Your task to perform on an android device: check google app version Image 0: 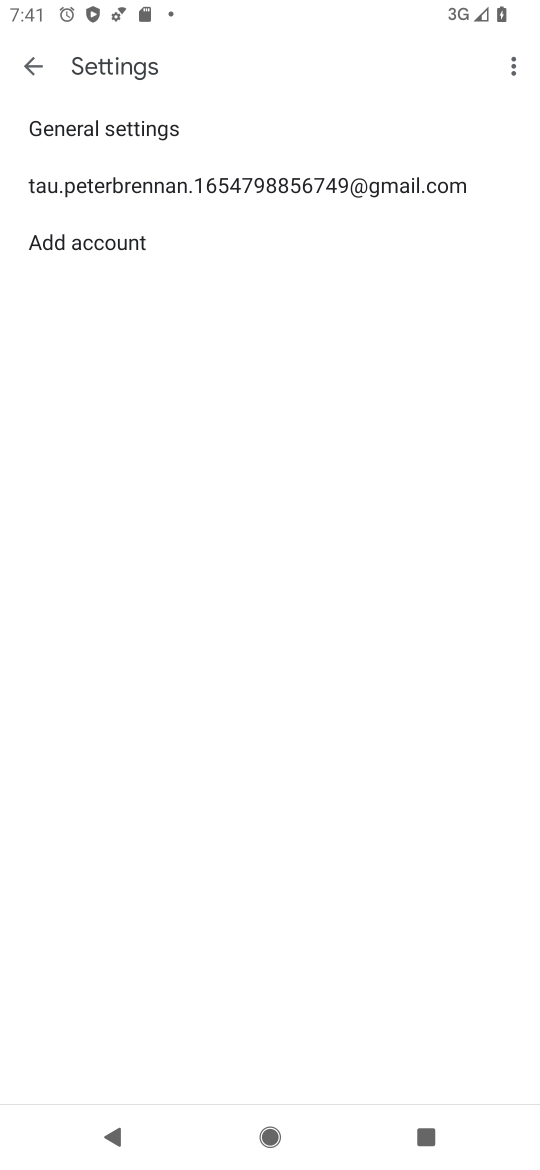
Step 0: click (28, 74)
Your task to perform on an android device: check google app version Image 1: 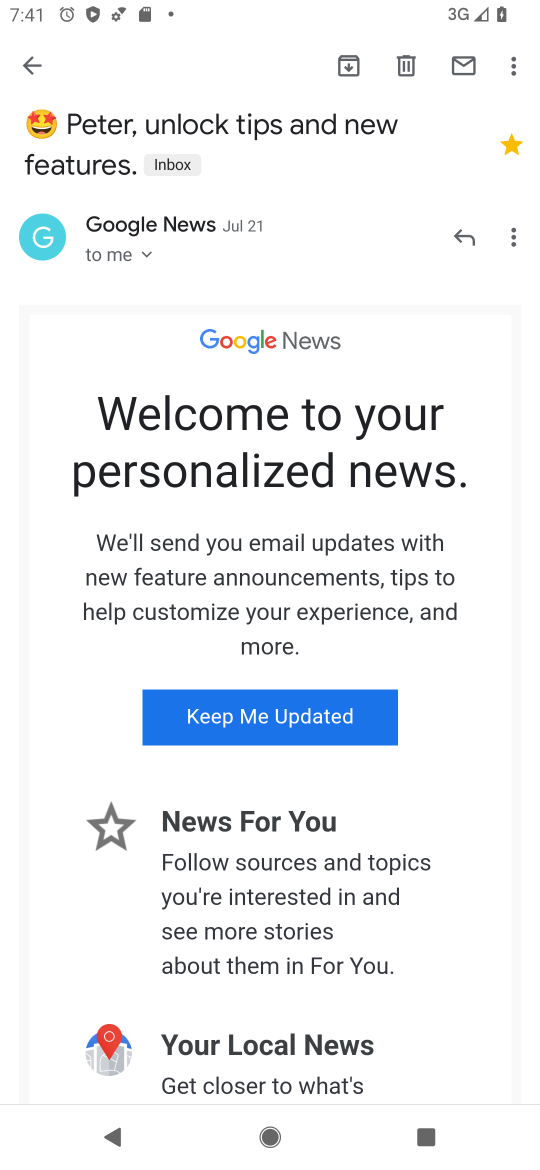
Step 1: click (31, 66)
Your task to perform on an android device: check google app version Image 2: 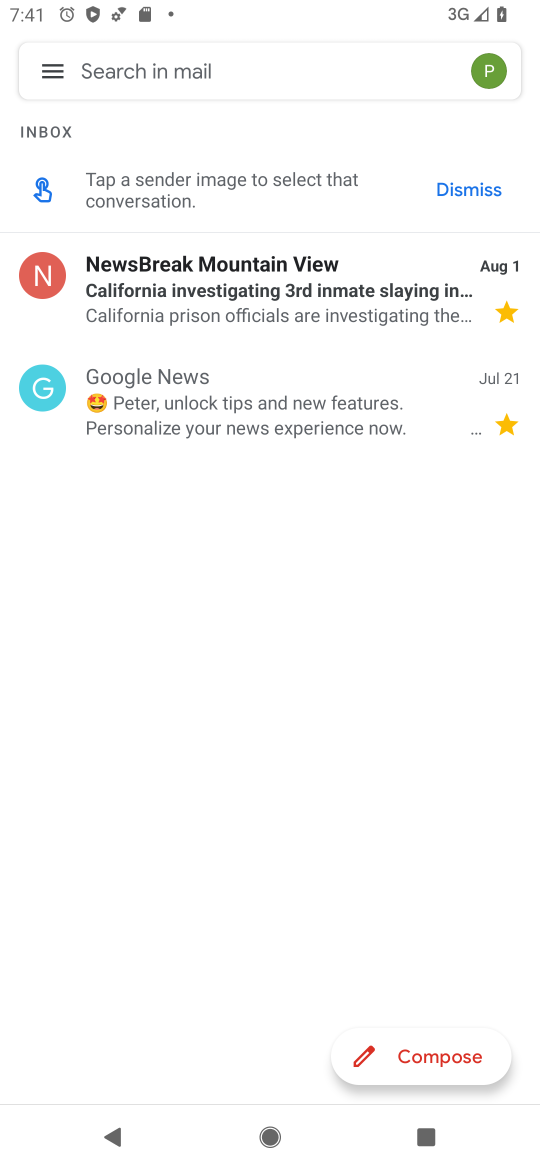
Step 2: press back button
Your task to perform on an android device: check google app version Image 3: 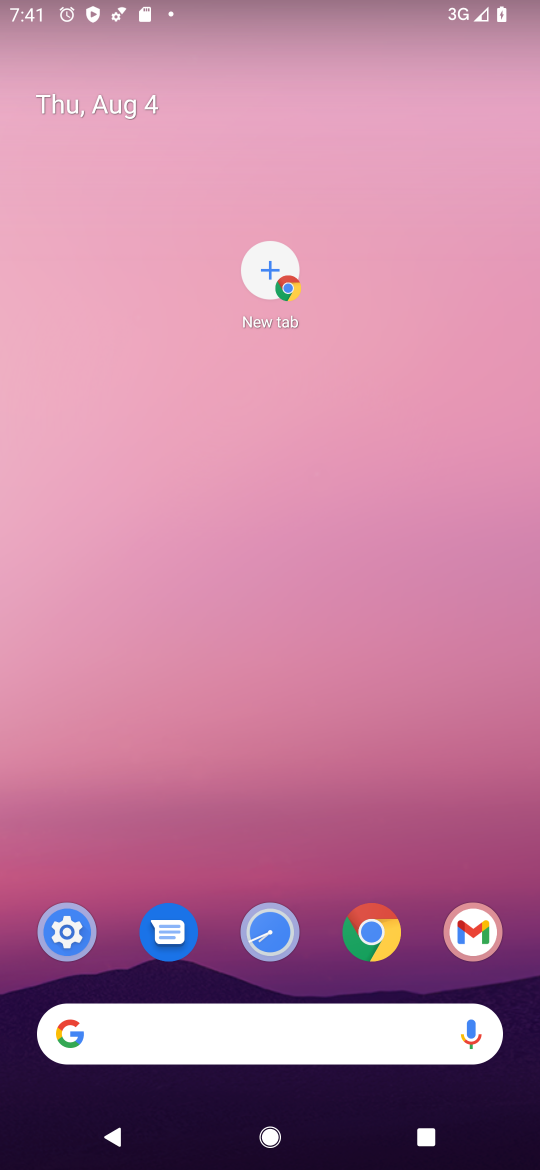
Step 3: press home button
Your task to perform on an android device: check google app version Image 4: 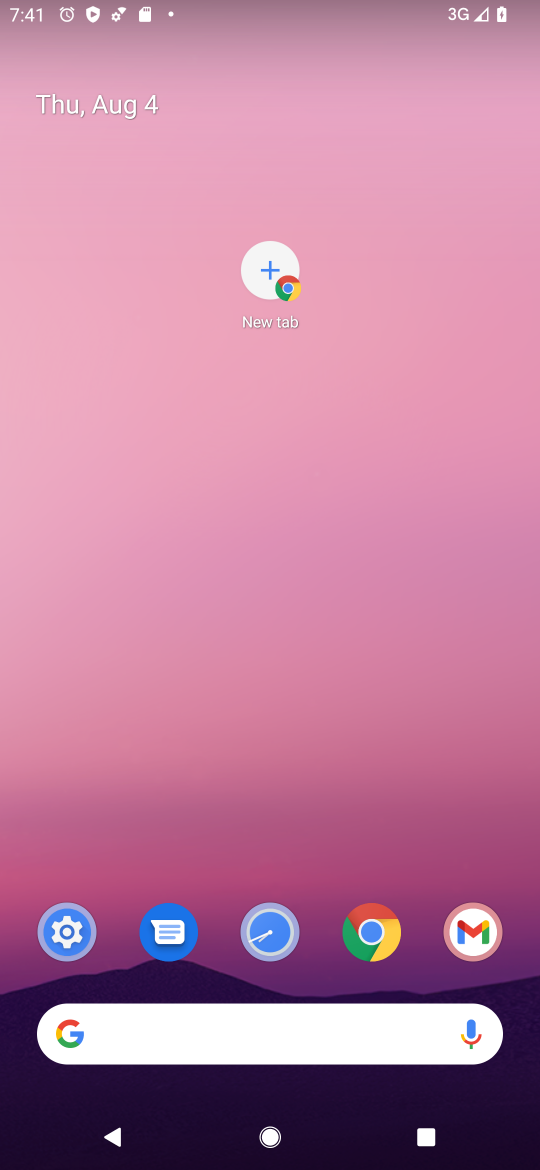
Step 4: drag from (318, 966) to (306, 247)
Your task to perform on an android device: check google app version Image 5: 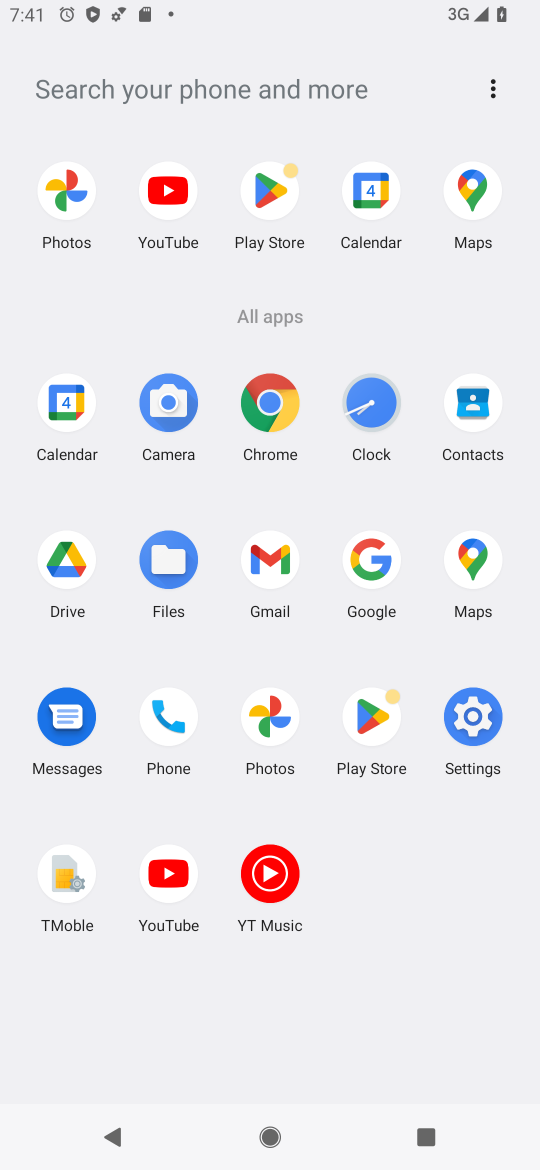
Step 5: click (377, 559)
Your task to perform on an android device: check google app version Image 6: 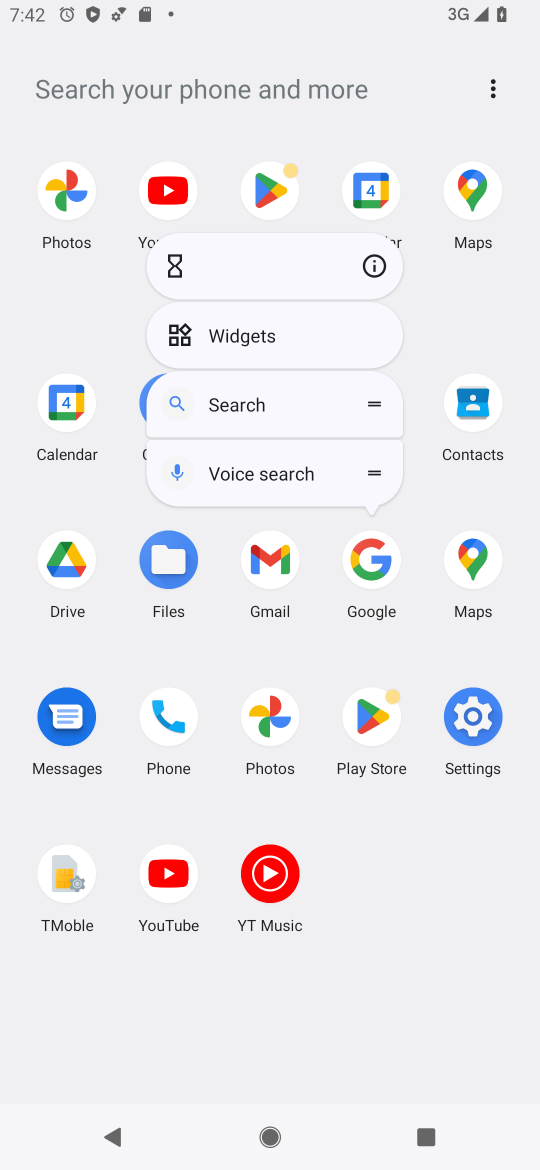
Step 6: click (367, 591)
Your task to perform on an android device: check google app version Image 7: 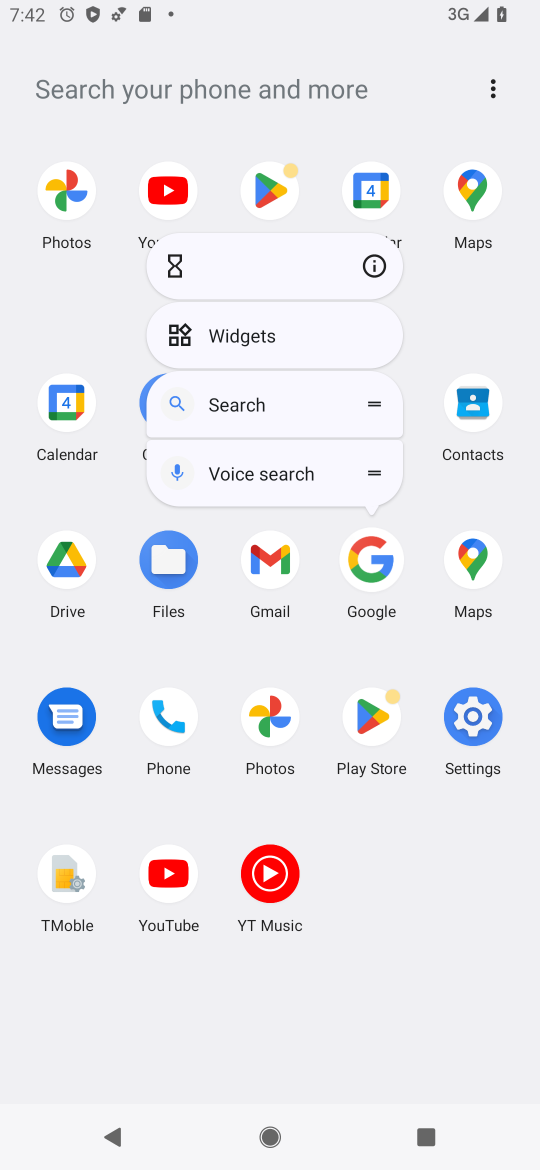
Step 7: drag from (367, 591) to (335, 520)
Your task to perform on an android device: check google app version Image 8: 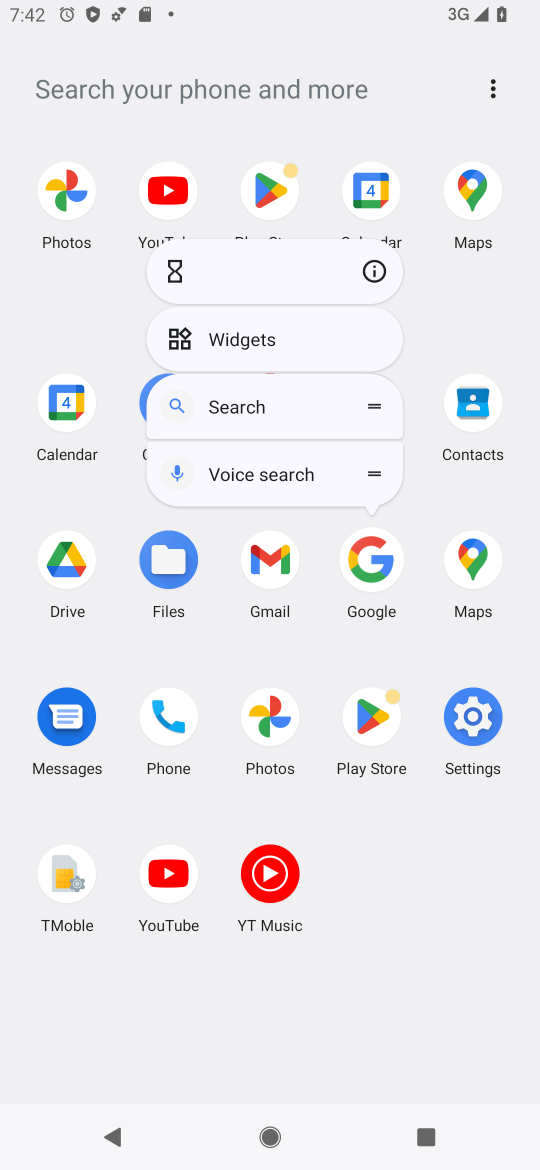
Step 8: click (370, 567)
Your task to perform on an android device: check google app version Image 9: 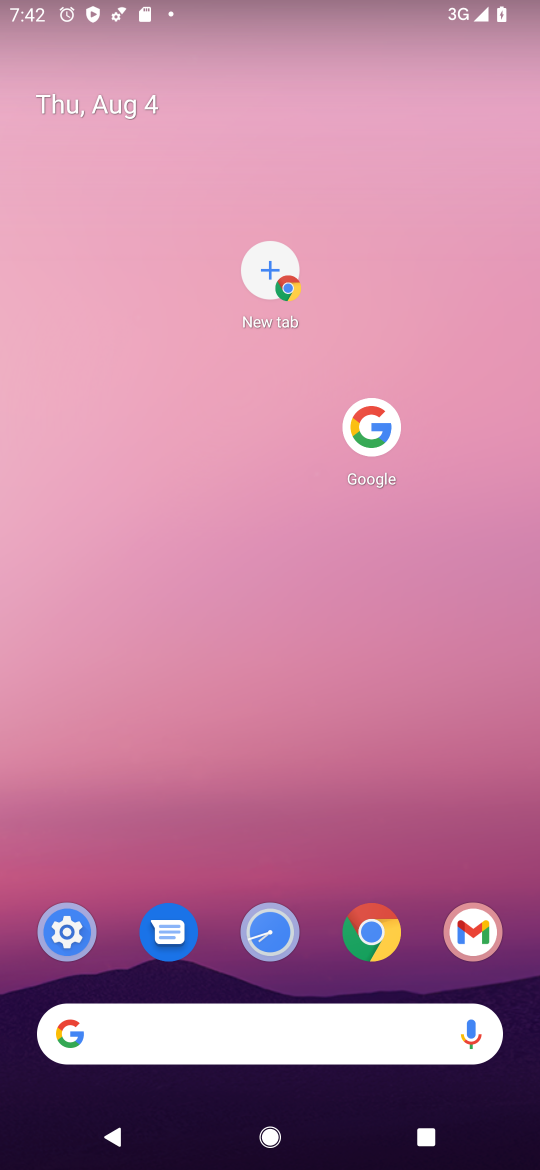
Step 9: drag from (296, 938) to (315, 107)
Your task to perform on an android device: check google app version Image 10: 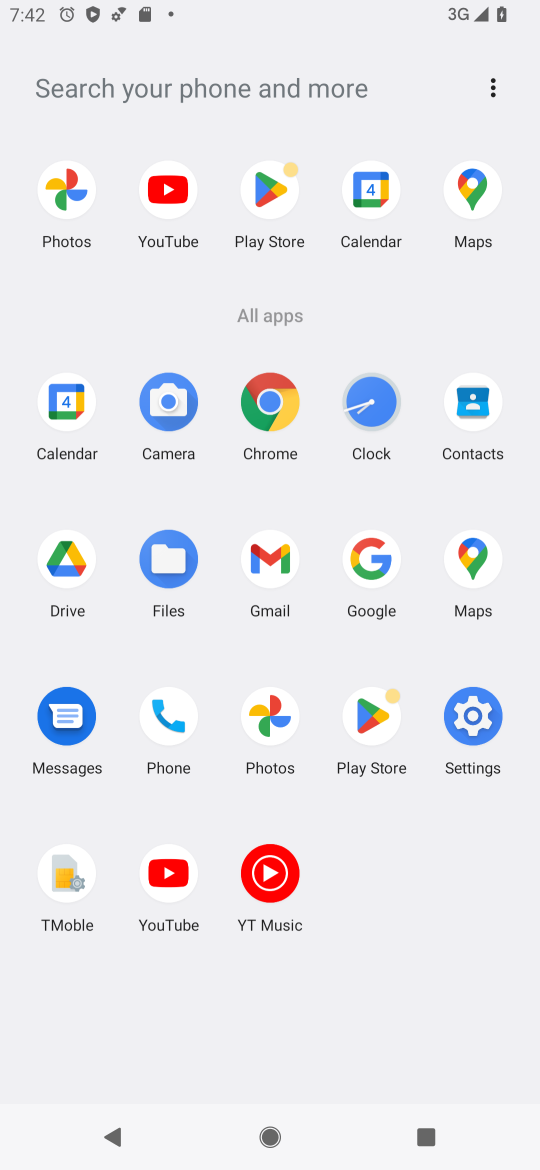
Step 10: drag from (374, 556) to (274, 21)
Your task to perform on an android device: check google app version Image 11: 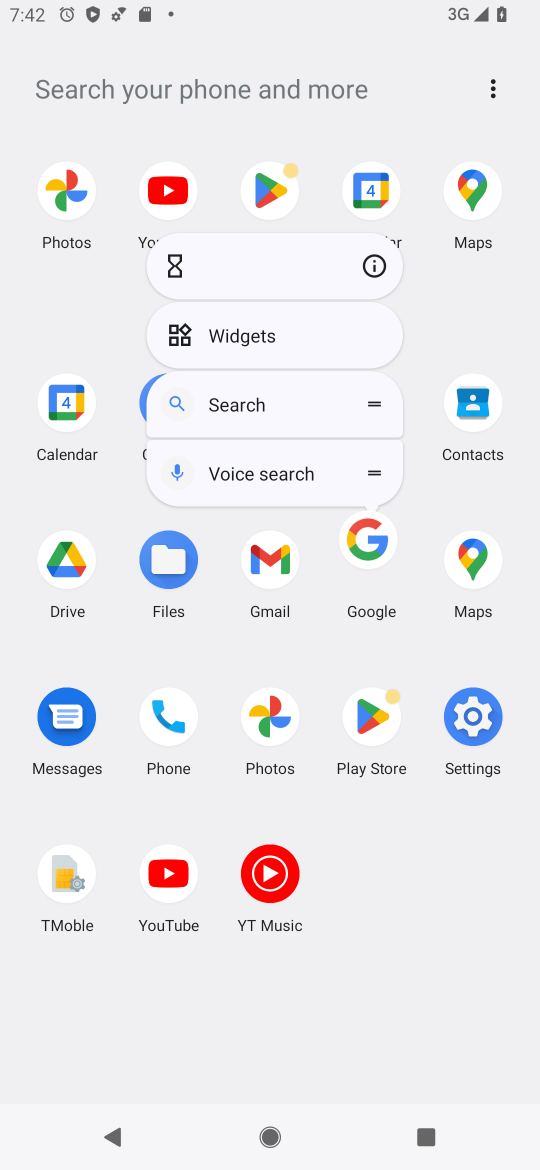
Step 11: click (377, 542)
Your task to perform on an android device: check google app version Image 12: 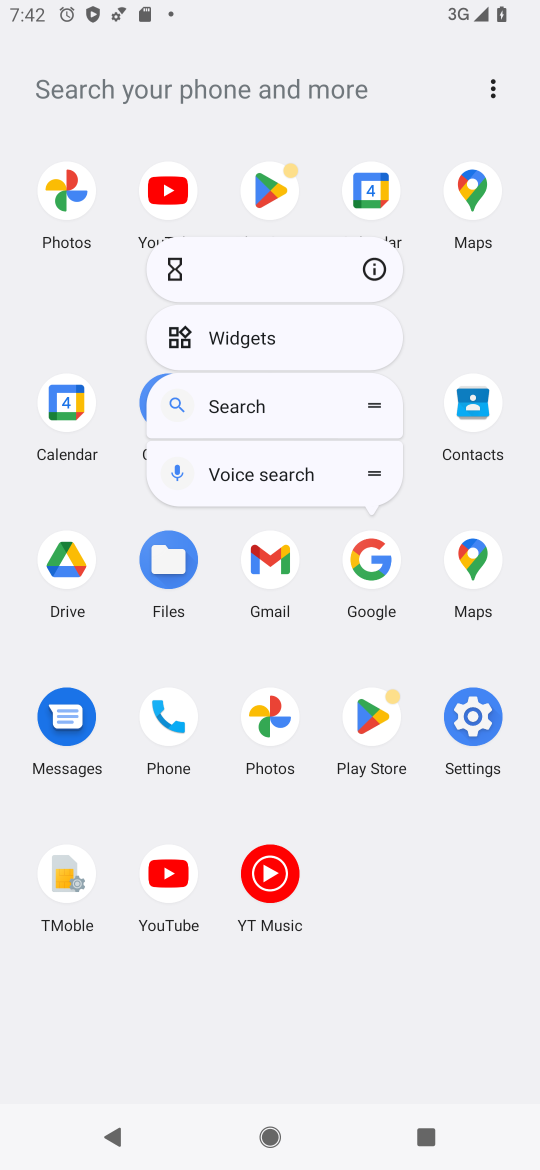
Step 12: drag from (381, 547) to (393, 606)
Your task to perform on an android device: check google app version Image 13: 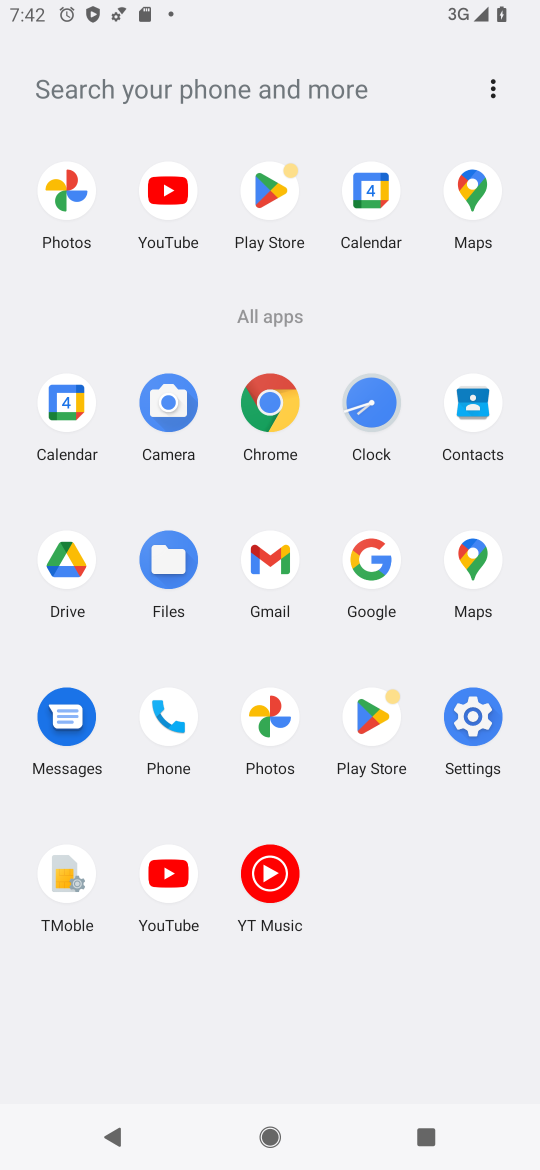
Step 13: click (378, 597)
Your task to perform on an android device: check google app version Image 14: 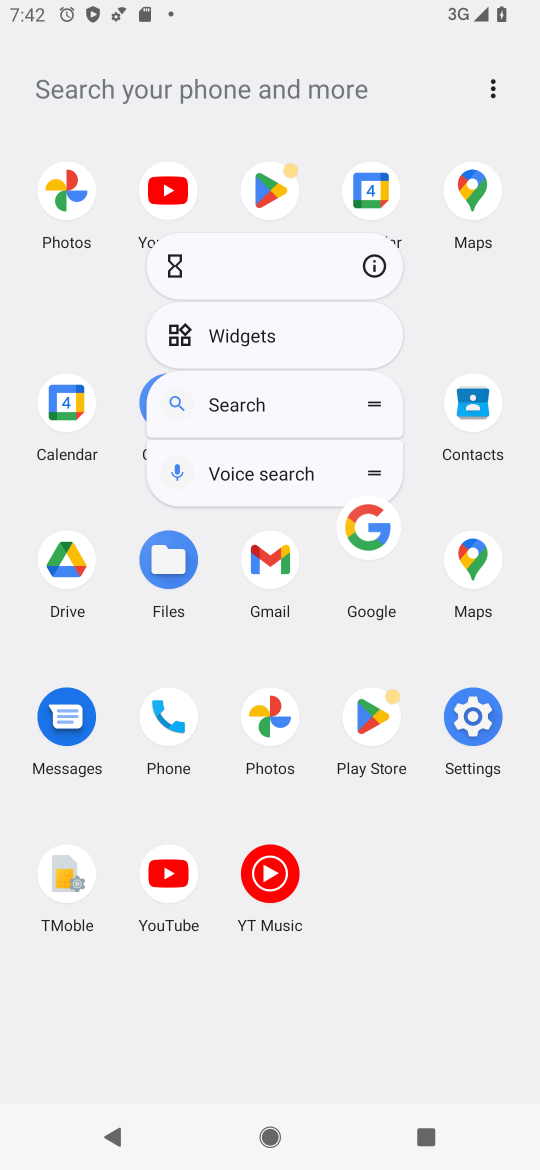
Step 14: click (369, 553)
Your task to perform on an android device: check google app version Image 15: 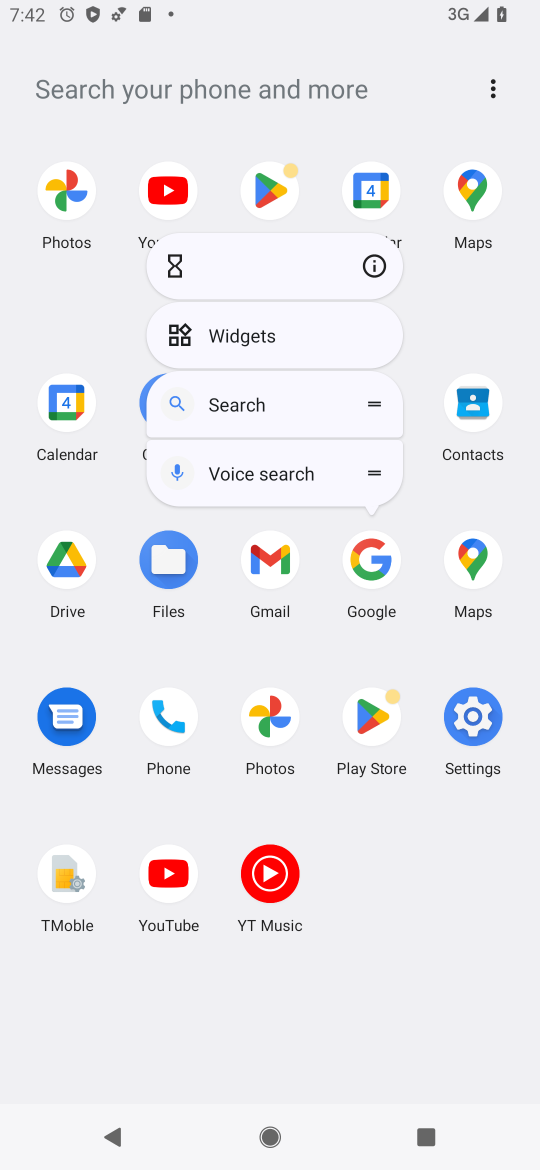
Step 15: click (369, 552)
Your task to perform on an android device: check google app version Image 16: 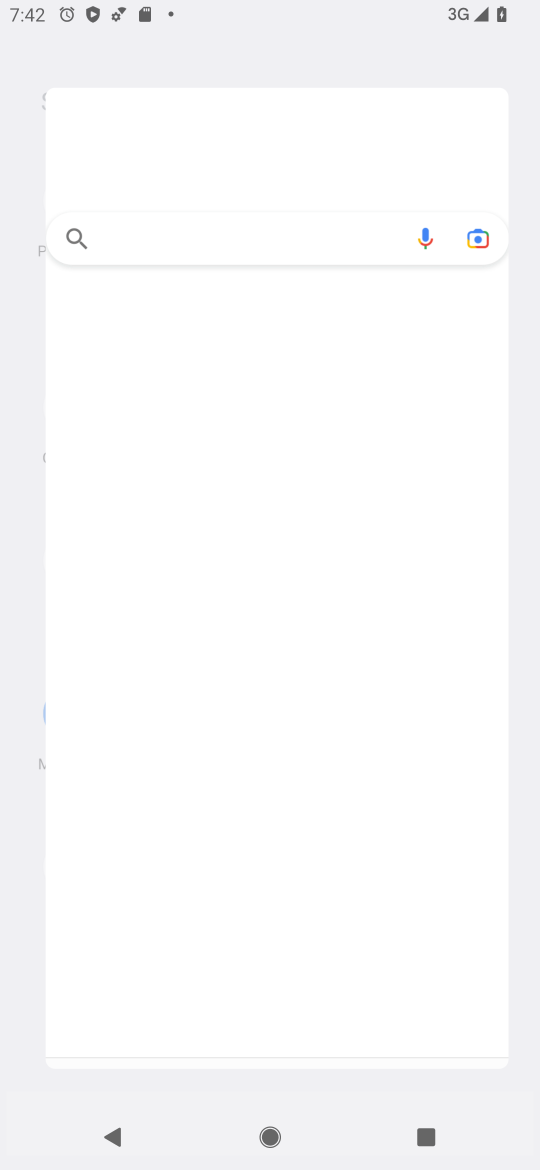
Step 16: click (360, 571)
Your task to perform on an android device: check google app version Image 17: 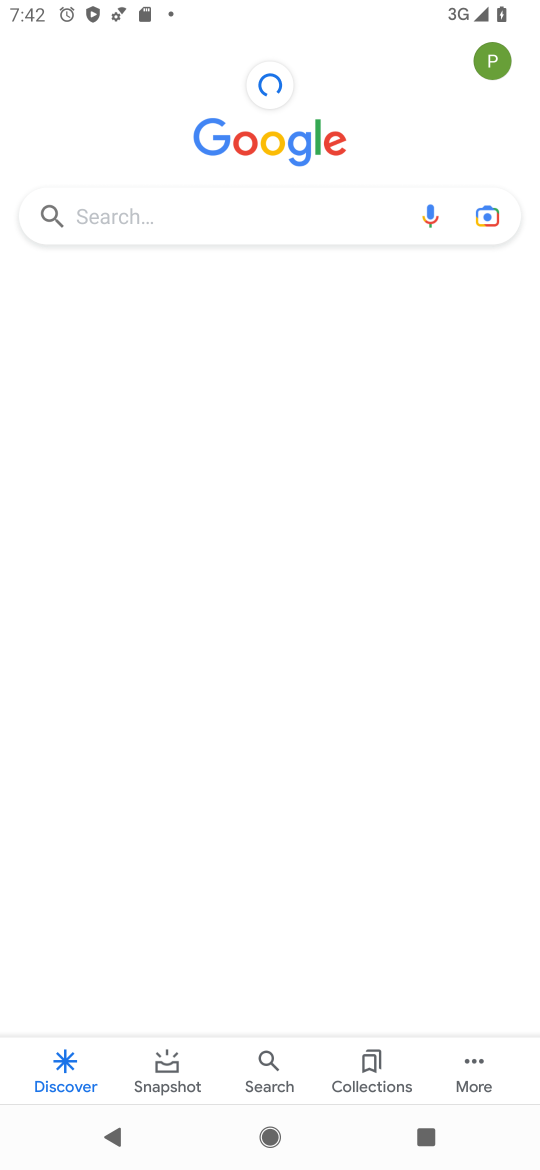
Step 17: click (478, 1067)
Your task to perform on an android device: check google app version Image 18: 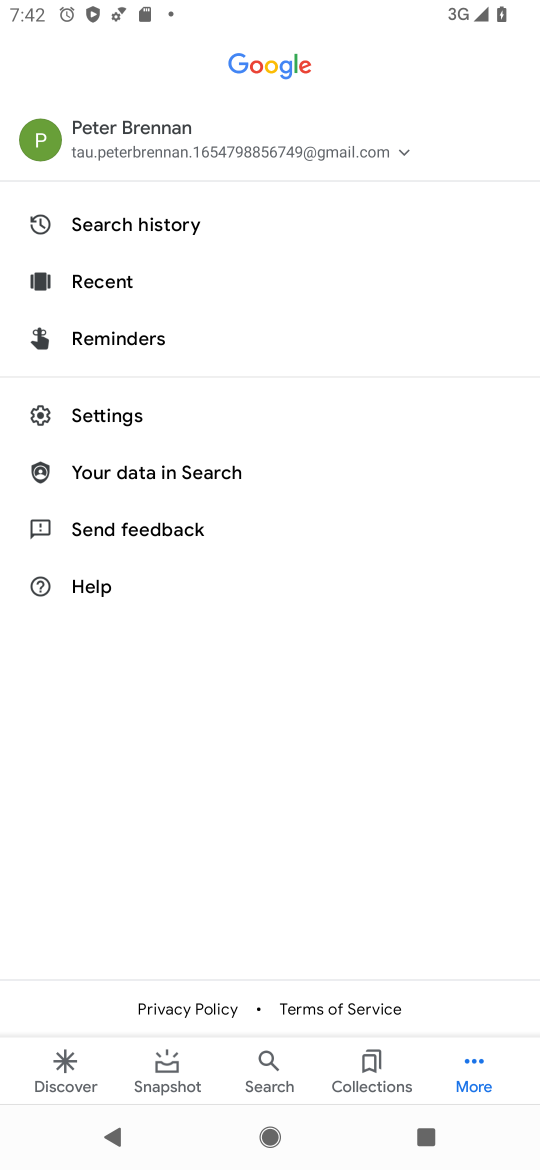
Step 18: click (116, 419)
Your task to perform on an android device: check google app version Image 19: 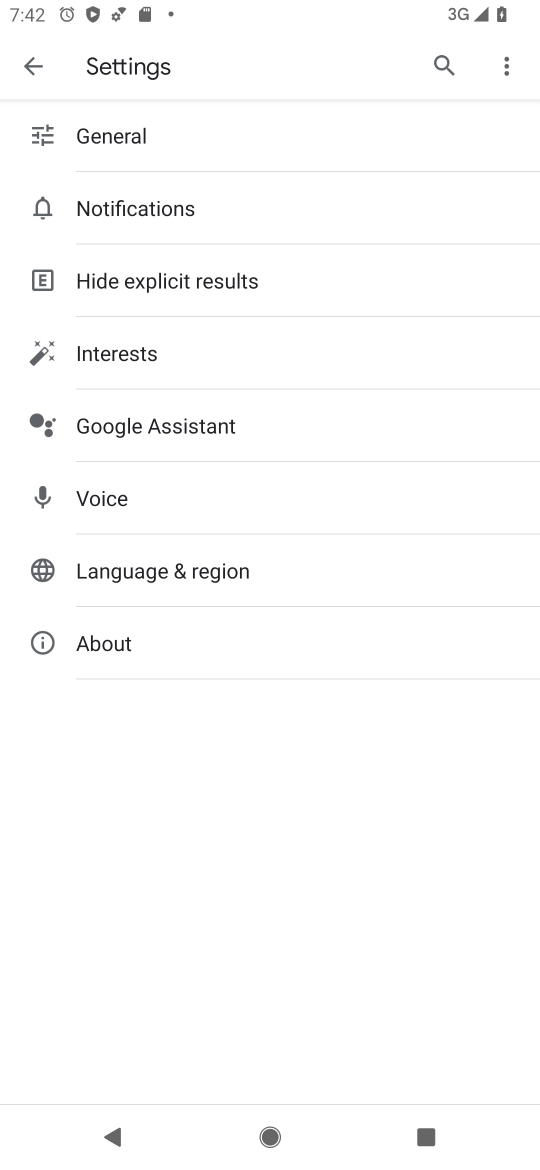
Step 19: click (112, 647)
Your task to perform on an android device: check google app version Image 20: 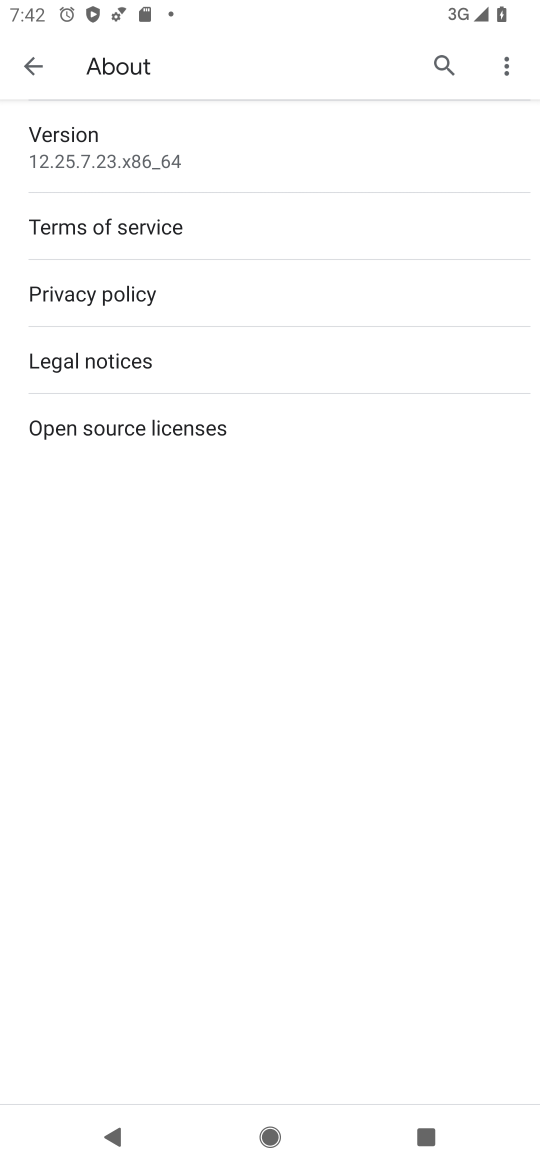
Step 20: click (91, 145)
Your task to perform on an android device: check google app version Image 21: 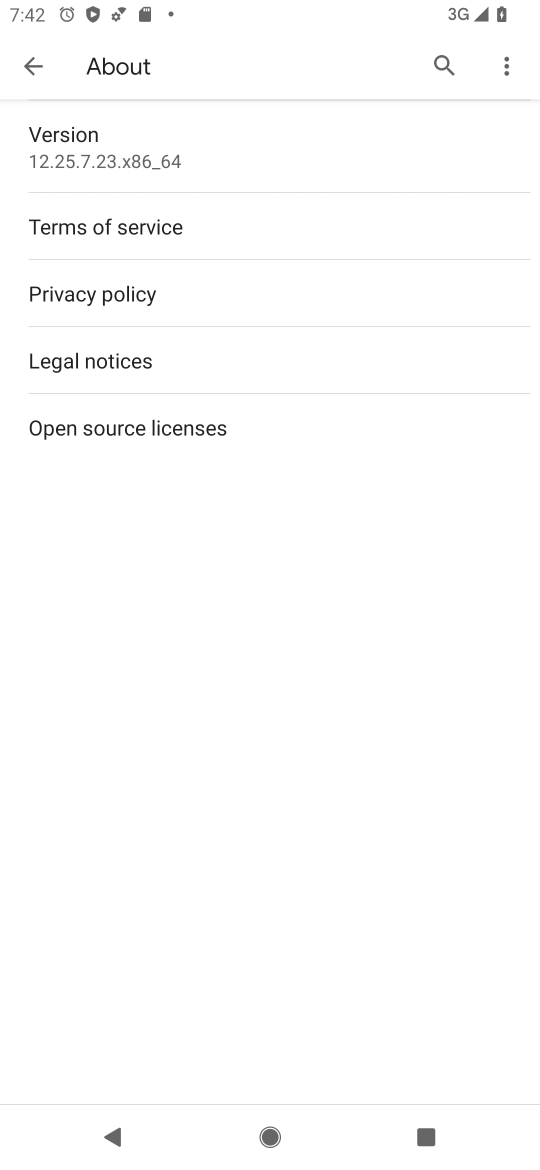
Step 21: task complete